Your task to perform on an android device: change the clock display to analog Image 0: 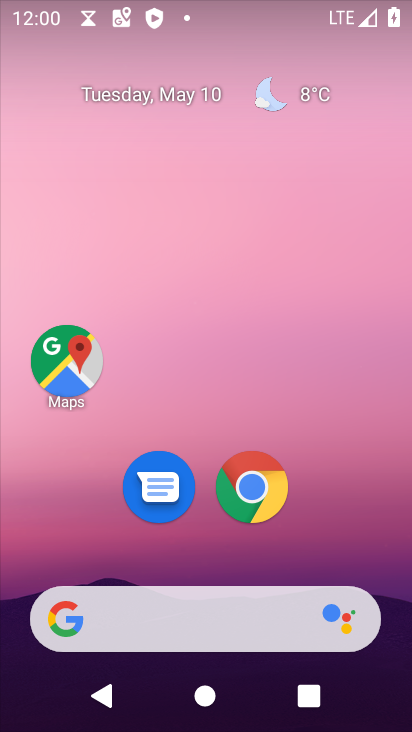
Step 0: press home button
Your task to perform on an android device: change the clock display to analog Image 1: 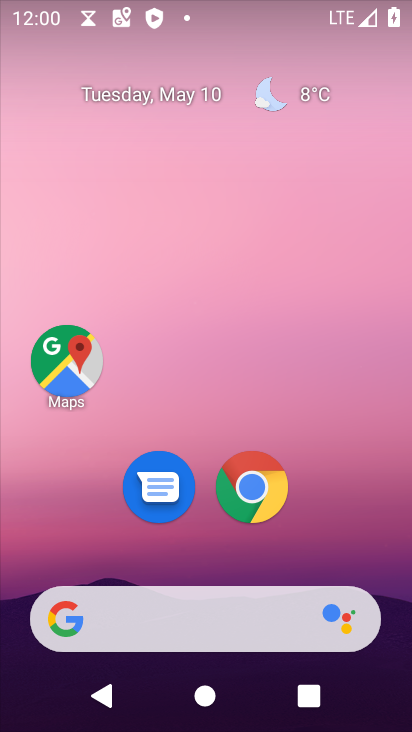
Step 1: drag from (187, 556) to (23, 382)
Your task to perform on an android device: change the clock display to analog Image 2: 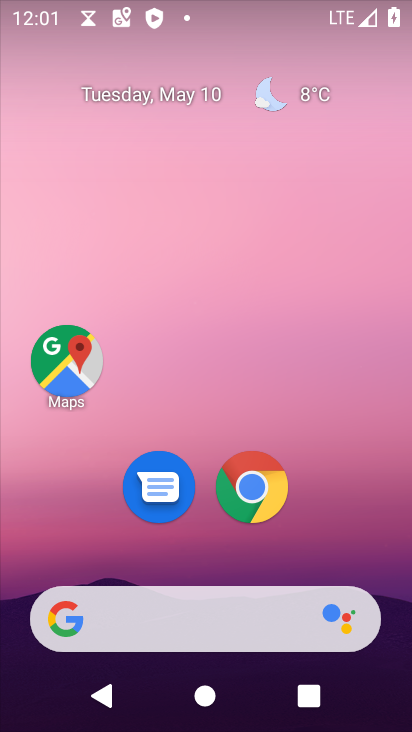
Step 2: click (343, 420)
Your task to perform on an android device: change the clock display to analog Image 3: 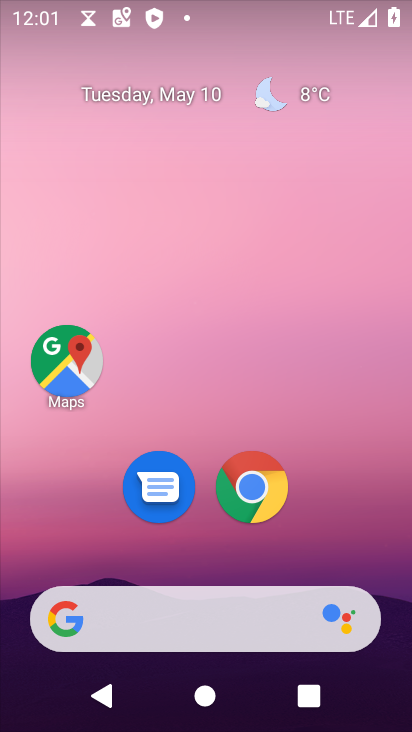
Step 3: drag from (311, 479) to (333, 3)
Your task to perform on an android device: change the clock display to analog Image 4: 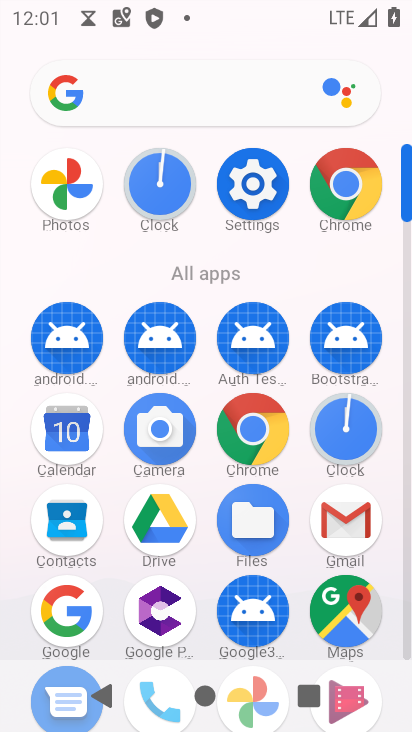
Step 4: click (342, 418)
Your task to perform on an android device: change the clock display to analog Image 5: 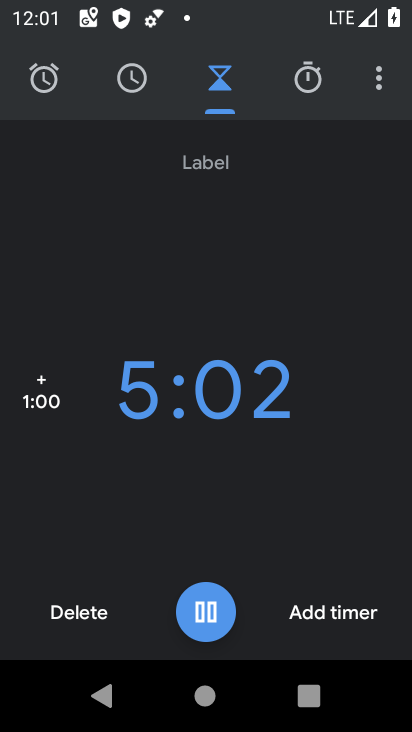
Step 5: click (67, 615)
Your task to perform on an android device: change the clock display to analog Image 6: 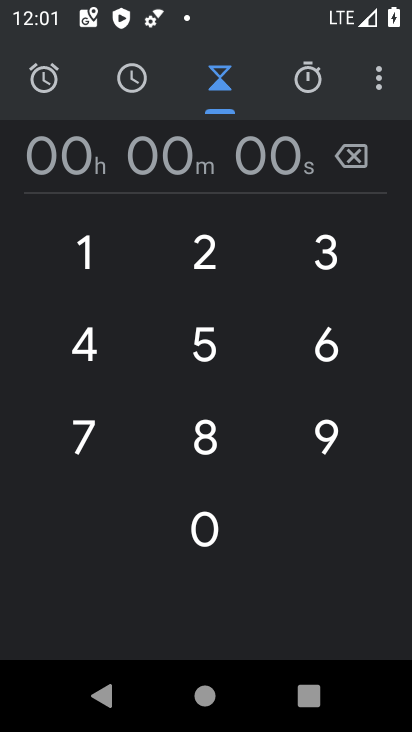
Step 6: click (375, 84)
Your task to perform on an android device: change the clock display to analog Image 7: 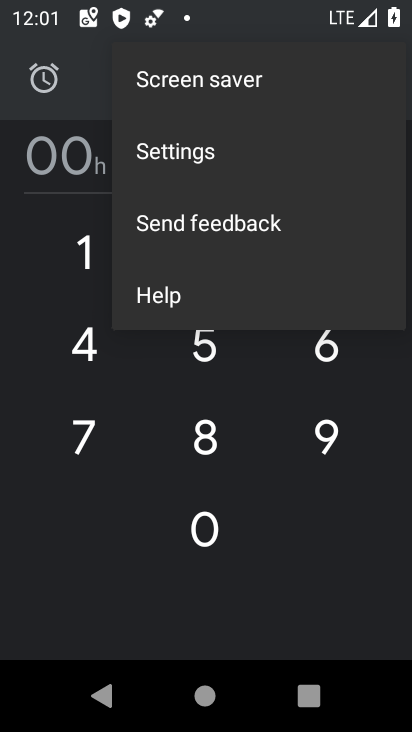
Step 7: click (211, 149)
Your task to perform on an android device: change the clock display to analog Image 8: 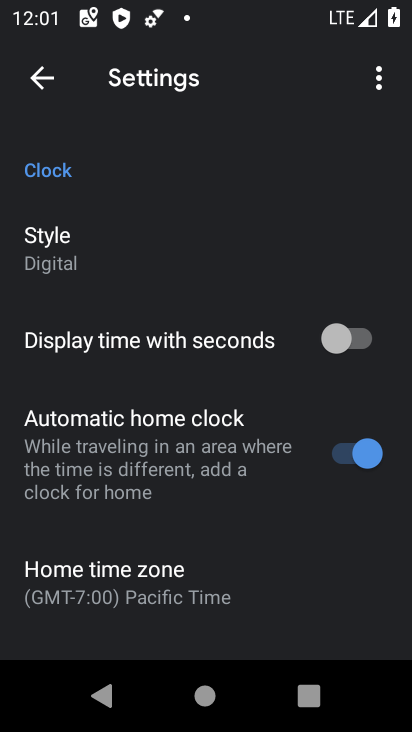
Step 8: click (106, 246)
Your task to perform on an android device: change the clock display to analog Image 9: 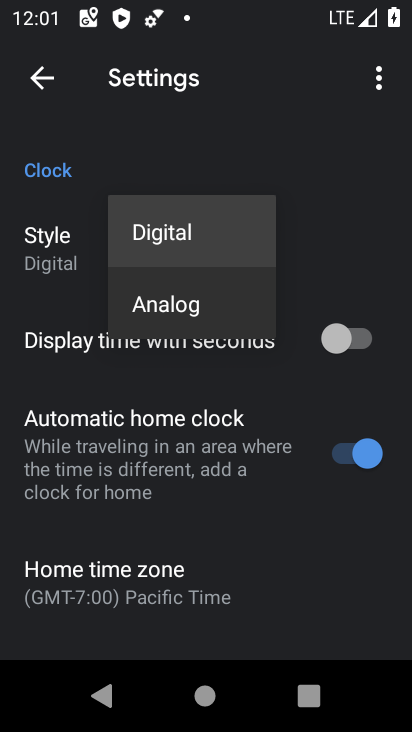
Step 9: click (163, 302)
Your task to perform on an android device: change the clock display to analog Image 10: 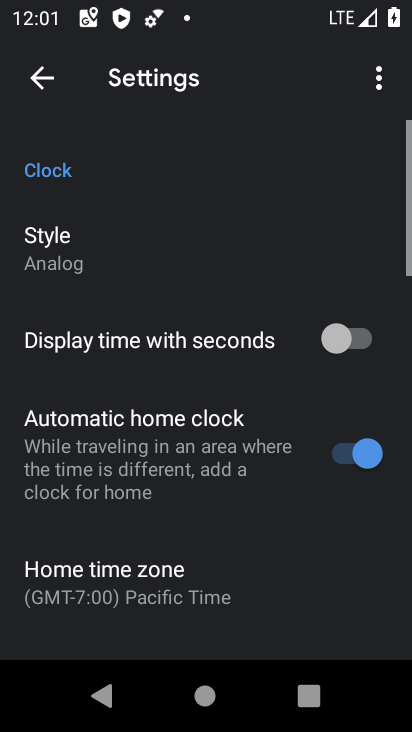
Step 10: task complete